Your task to perform on an android device: turn on bluetooth scan Image 0: 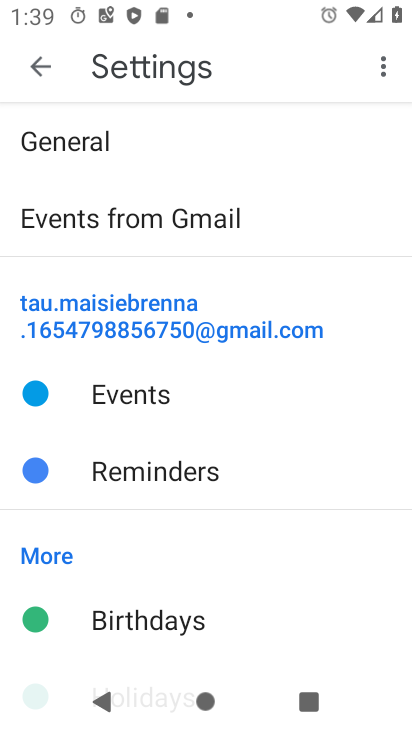
Step 0: press home button
Your task to perform on an android device: turn on bluetooth scan Image 1: 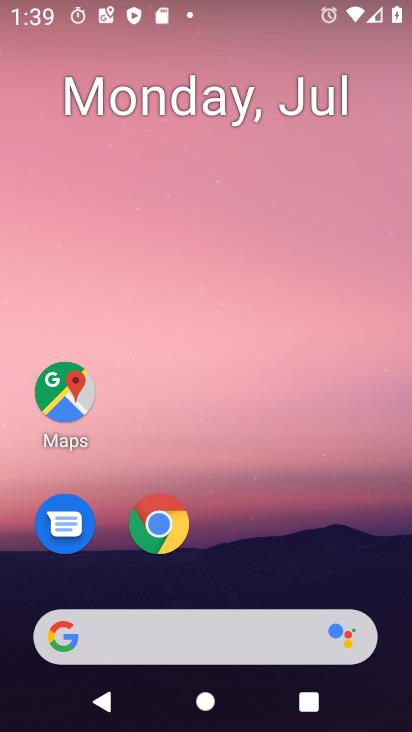
Step 1: drag from (319, 541) to (382, 91)
Your task to perform on an android device: turn on bluetooth scan Image 2: 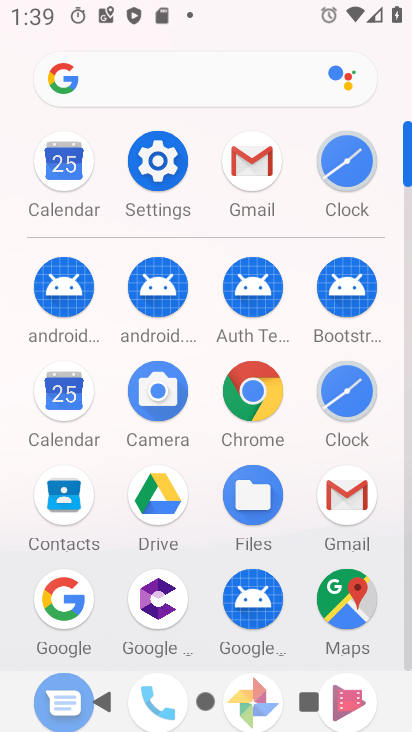
Step 2: click (168, 149)
Your task to perform on an android device: turn on bluetooth scan Image 3: 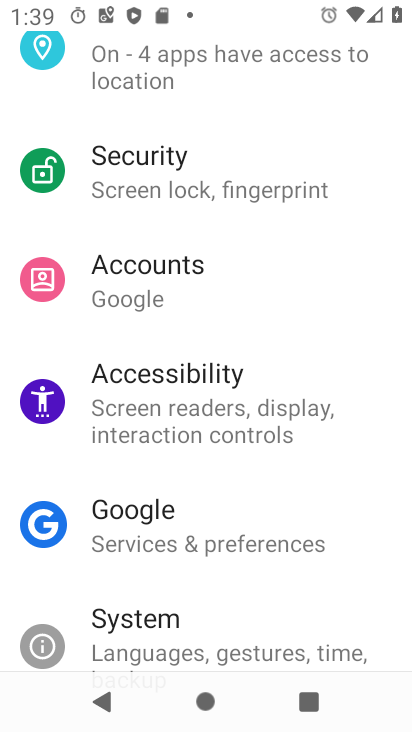
Step 3: drag from (225, 120) to (188, 271)
Your task to perform on an android device: turn on bluetooth scan Image 4: 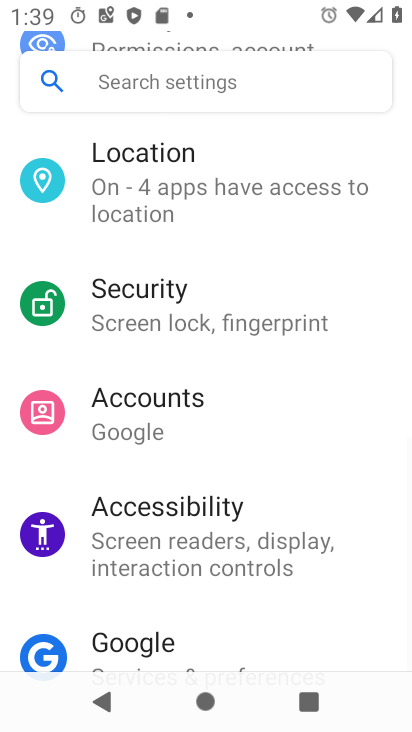
Step 4: click (167, 204)
Your task to perform on an android device: turn on bluetooth scan Image 5: 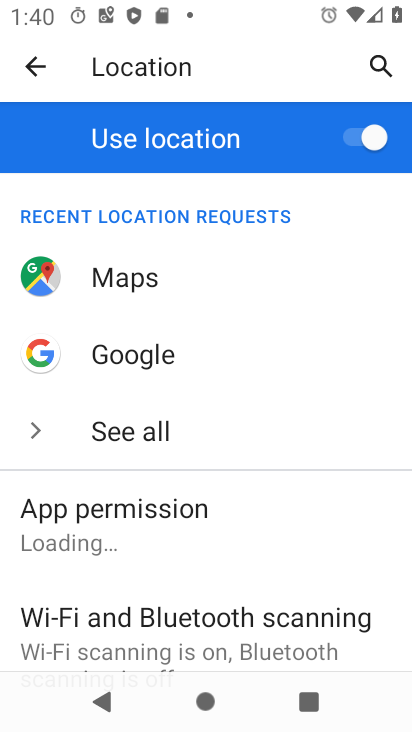
Step 5: click (112, 624)
Your task to perform on an android device: turn on bluetooth scan Image 6: 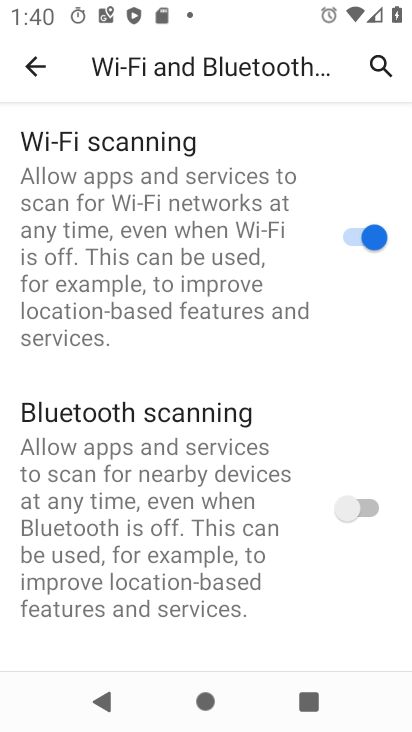
Step 6: click (371, 503)
Your task to perform on an android device: turn on bluetooth scan Image 7: 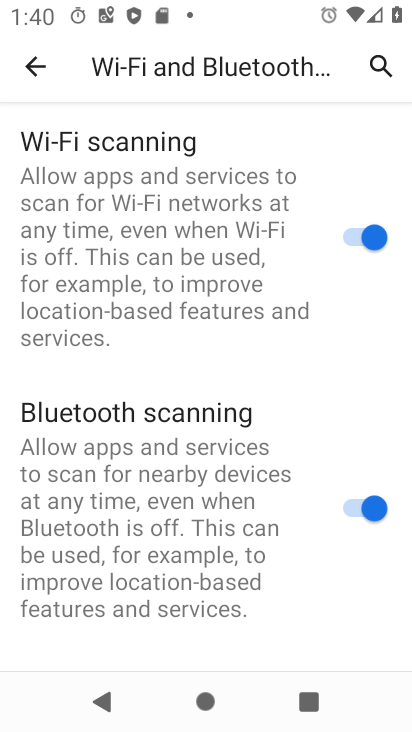
Step 7: task complete